Your task to perform on an android device: toggle location history Image 0: 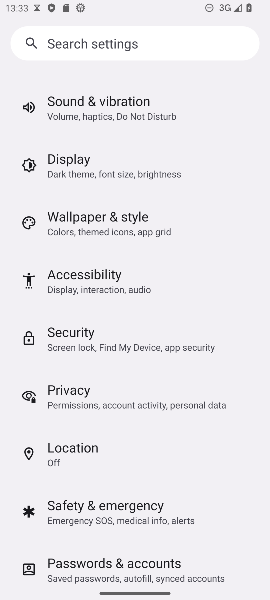
Step 0: press home button
Your task to perform on an android device: toggle location history Image 1: 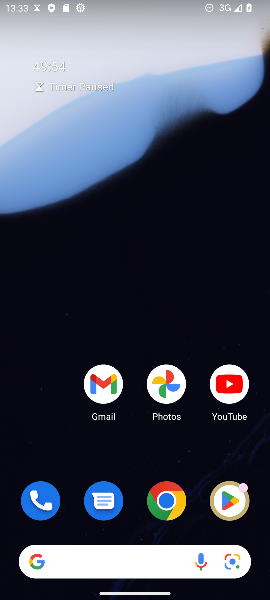
Step 1: drag from (126, 481) to (209, 164)
Your task to perform on an android device: toggle location history Image 2: 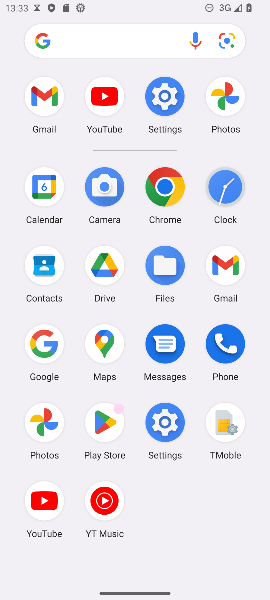
Step 2: click (160, 96)
Your task to perform on an android device: toggle location history Image 3: 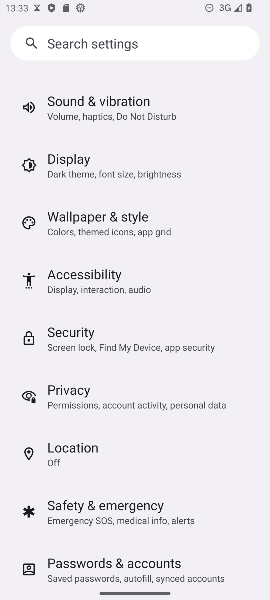
Step 3: click (74, 453)
Your task to perform on an android device: toggle location history Image 4: 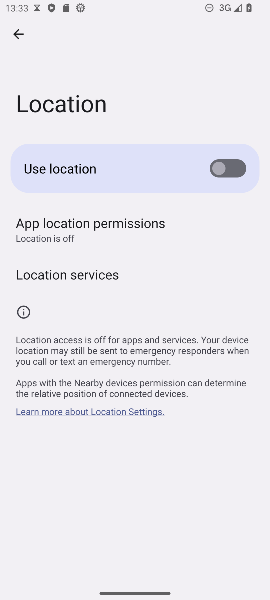
Step 4: click (239, 164)
Your task to perform on an android device: toggle location history Image 5: 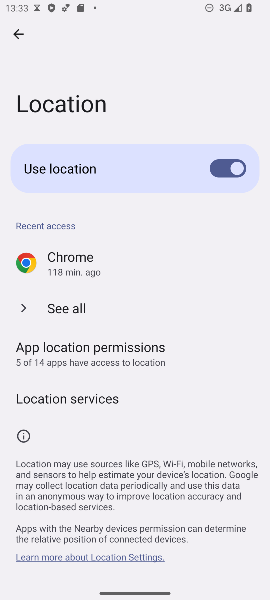
Step 5: click (69, 275)
Your task to perform on an android device: toggle location history Image 6: 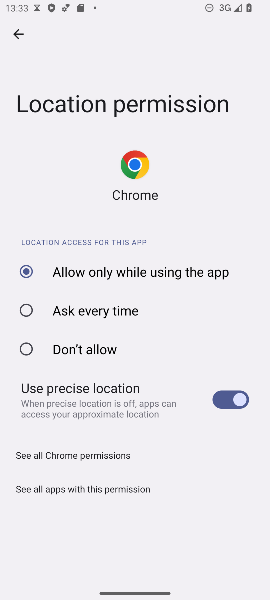
Step 6: click (18, 31)
Your task to perform on an android device: toggle location history Image 7: 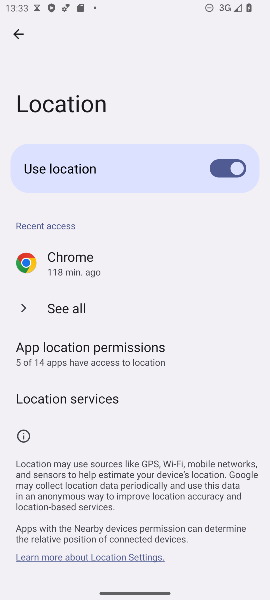
Step 7: click (85, 399)
Your task to perform on an android device: toggle location history Image 8: 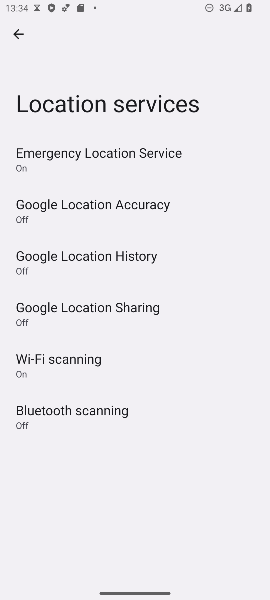
Step 8: click (105, 262)
Your task to perform on an android device: toggle location history Image 9: 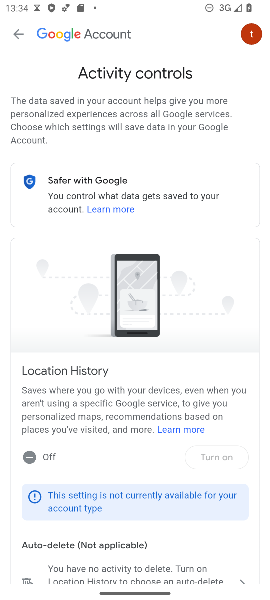
Step 9: task complete